Your task to perform on an android device: install app "Messenger Lite" Image 0: 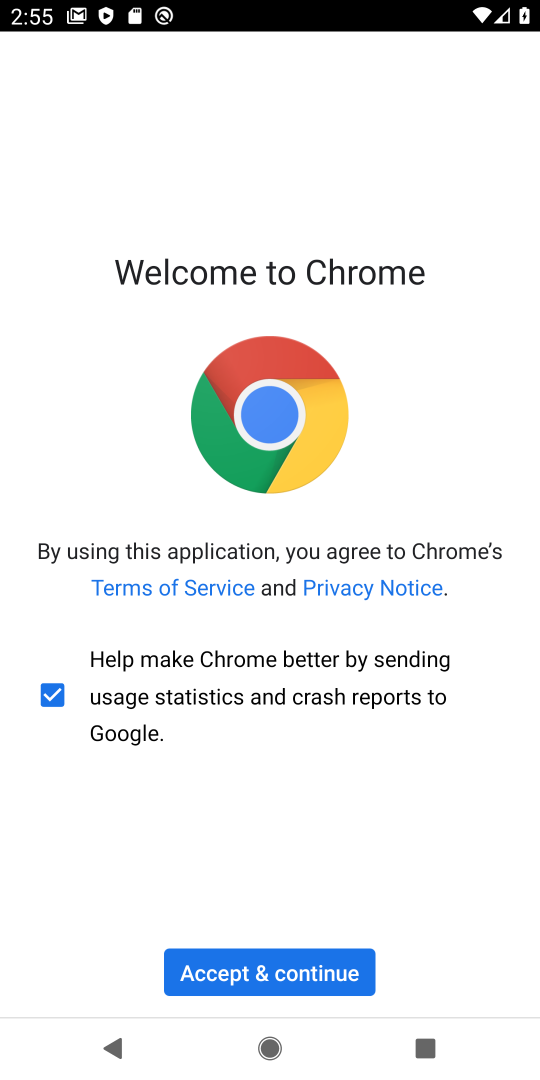
Step 0: press home button
Your task to perform on an android device: install app "Messenger Lite" Image 1: 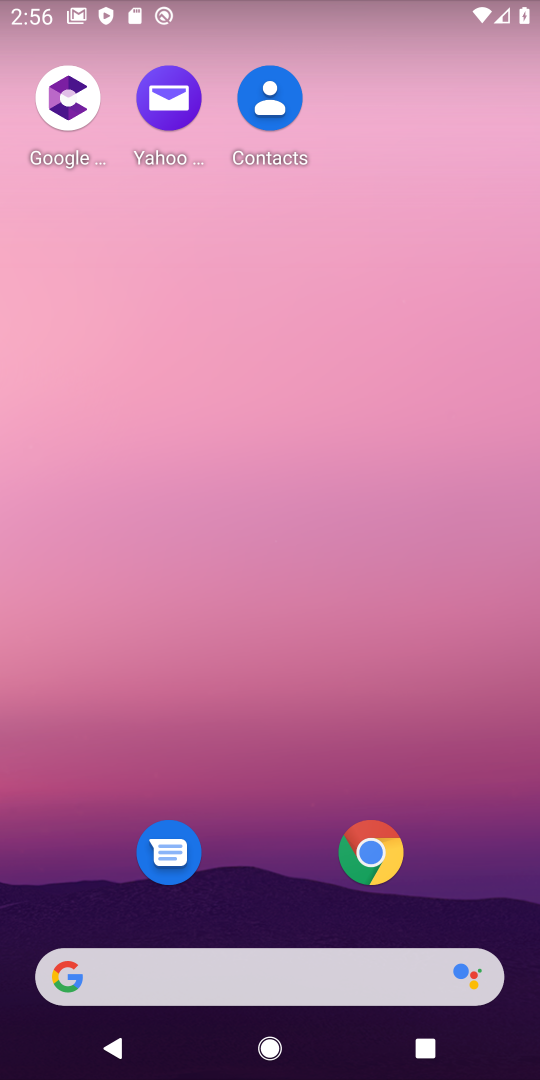
Step 1: drag from (269, 911) to (312, 72)
Your task to perform on an android device: install app "Messenger Lite" Image 2: 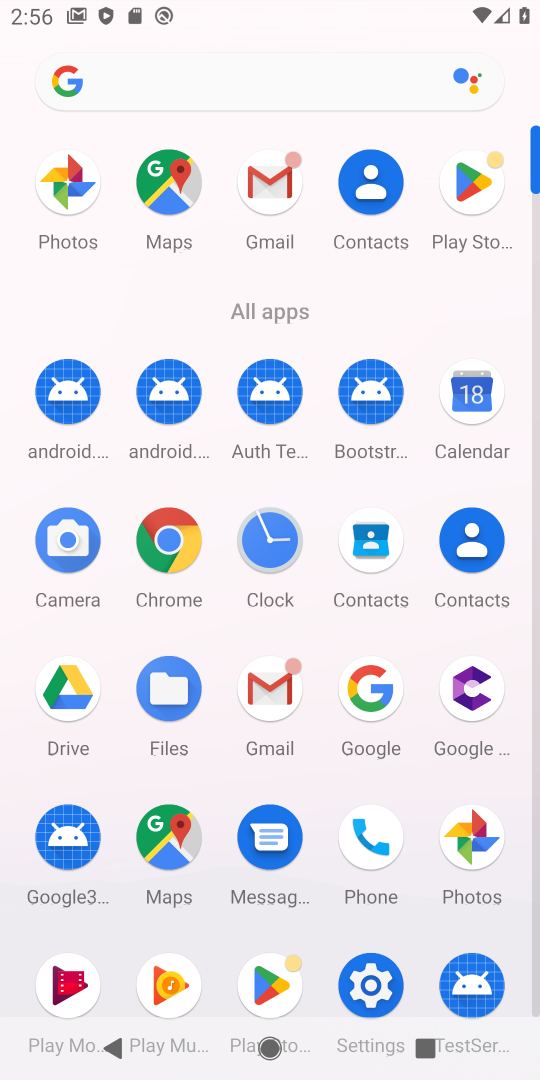
Step 2: click (470, 175)
Your task to perform on an android device: install app "Messenger Lite" Image 3: 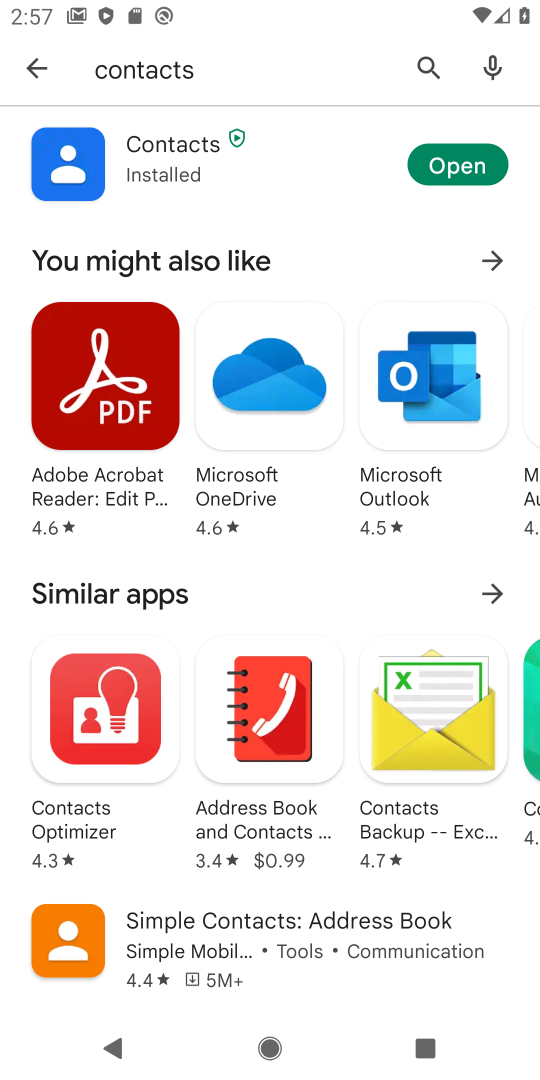
Step 3: click (412, 54)
Your task to perform on an android device: install app "Messenger Lite" Image 4: 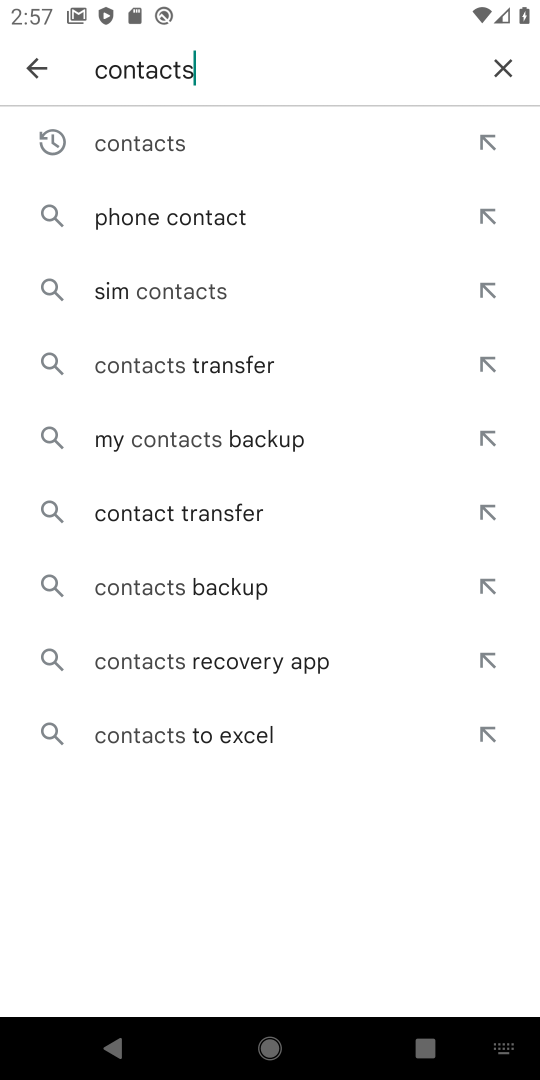
Step 4: type "Messenger Lite"
Your task to perform on an android device: install app "Messenger Lite" Image 5: 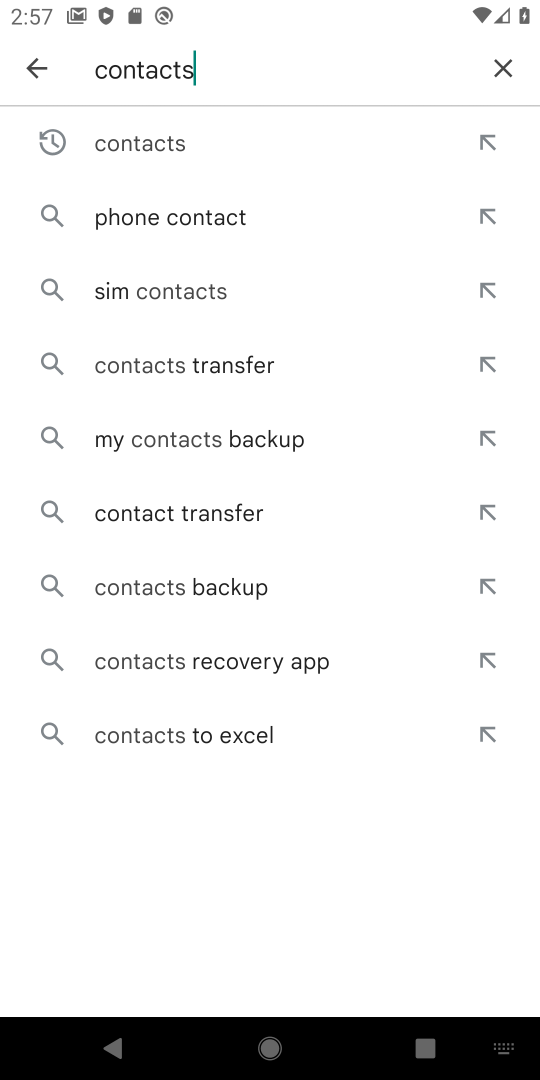
Step 5: click (489, 70)
Your task to perform on an android device: install app "Messenger Lite" Image 6: 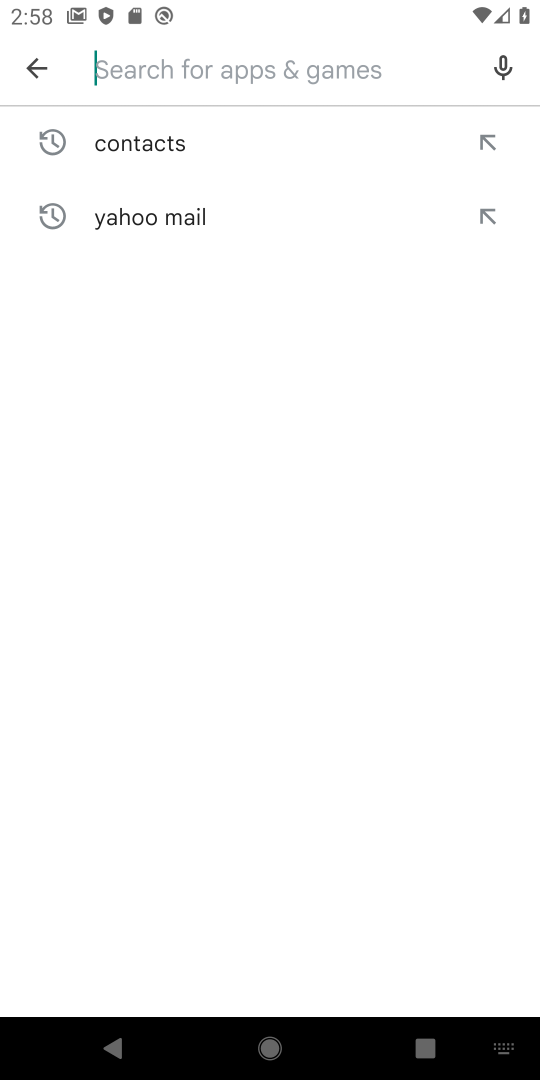
Step 6: type "Messenger Lite"
Your task to perform on an android device: install app "Messenger Lite" Image 7: 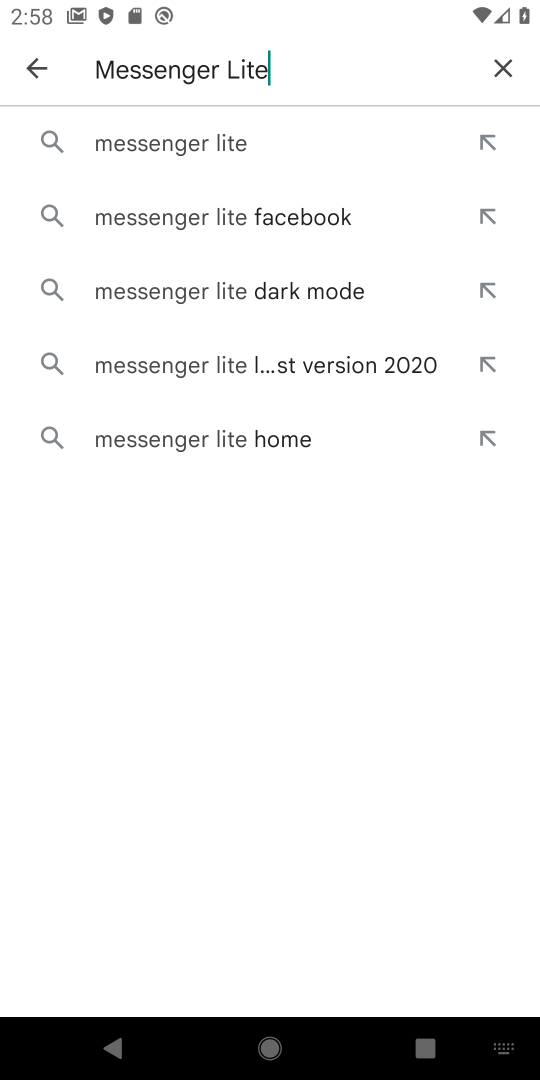
Step 7: click (276, 121)
Your task to perform on an android device: install app "Messenger Lite" Image 8: 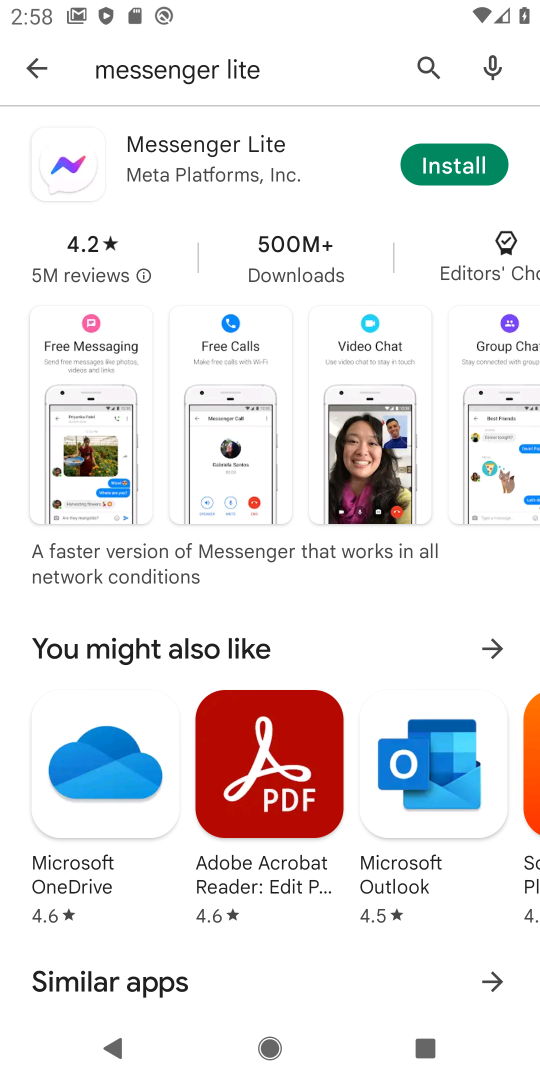
Step 8: click (462, 160)
Your task to perform on an android device: install app "Messenger Lite" Image 9: 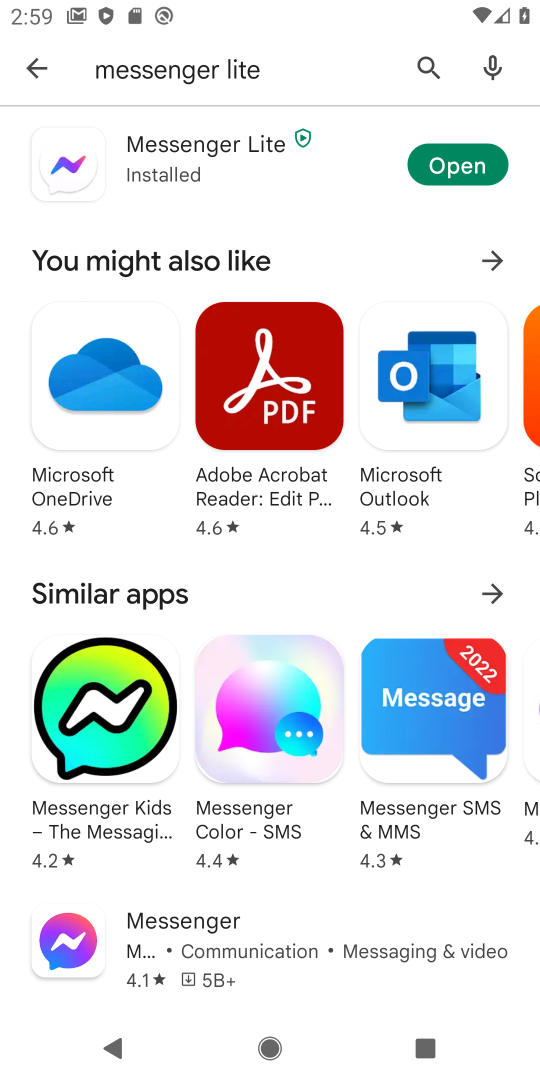
Step 9: click (462, 158)
Your task to perform on an android device: install app "Messenger Lite" Image 10: 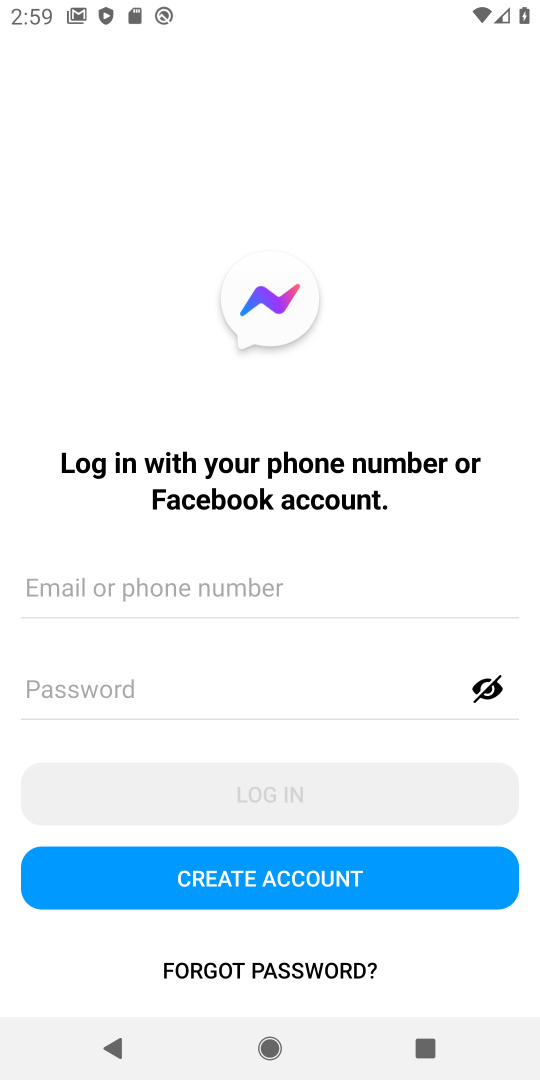
Step 10: task complete